Your task to perform on an android device: add a label to a message in the gmail app Image 0: 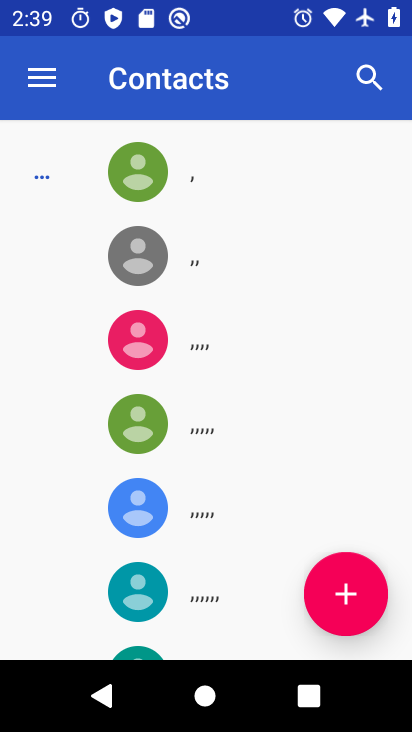
Step 0: press home button
Your task to perform on an android device: add a label to a message in the gmail app Image 1: 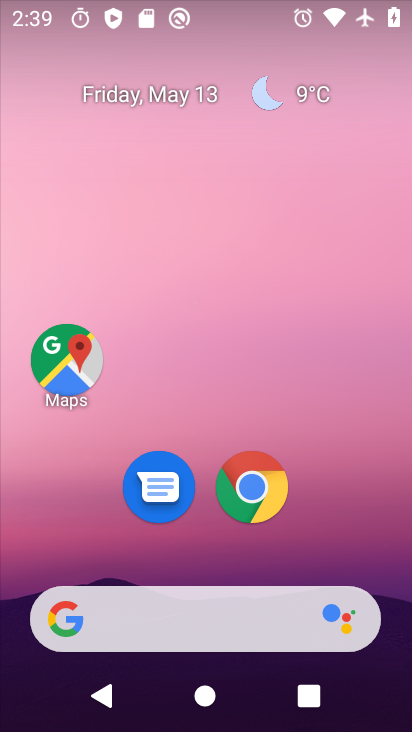
Step 1: drag from (201, 535) to (246, 78)
Your task to perform on an android device: add a label to a message in the gmail app Image 2: 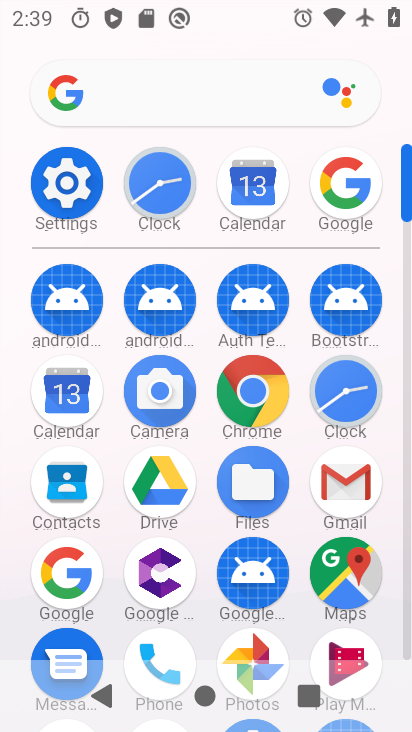
Step 2: click (354, 478)
Your task to perform on an android device: add a label to a message in the gmail app Image 3: 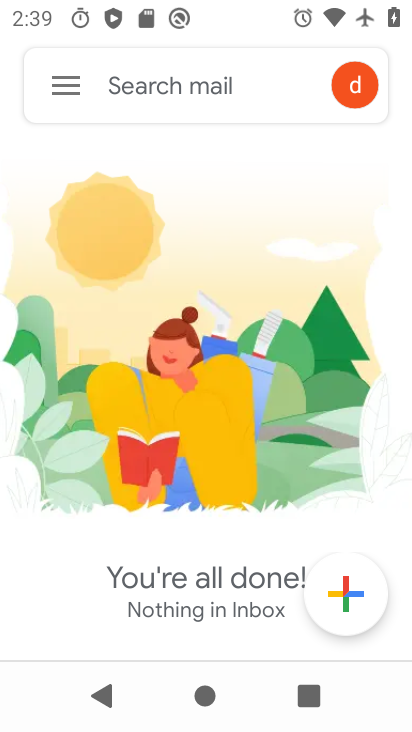
Step 3: click (63, 79)
Your task to perform on an android device: add a label to a message in the gmail app Image 4: 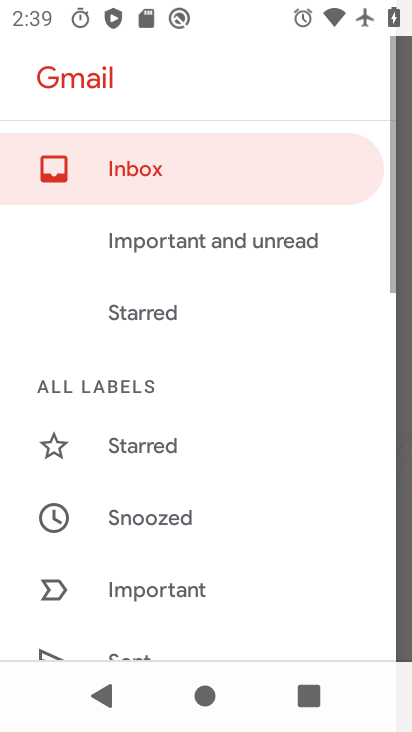
Step 4: drag from (227, 528) to (226, 131)
Your task to perform on an android device: add a label to a message in the gmail app Image 5: 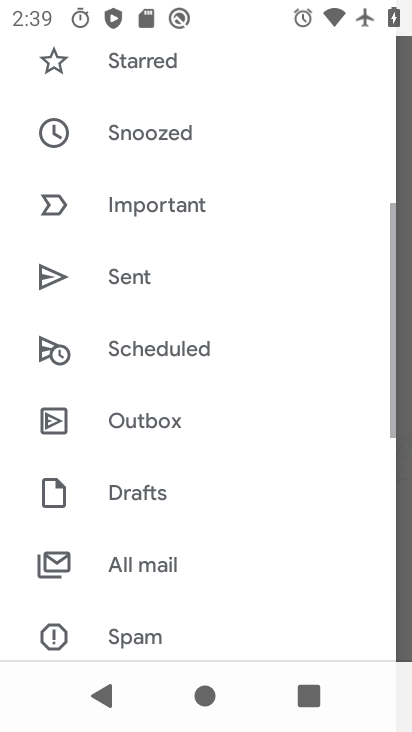
Step 5: drag from (221, 550) to (221, 189)
Your task to perform on an android device: add a label to a message in the gmail app Image 6: 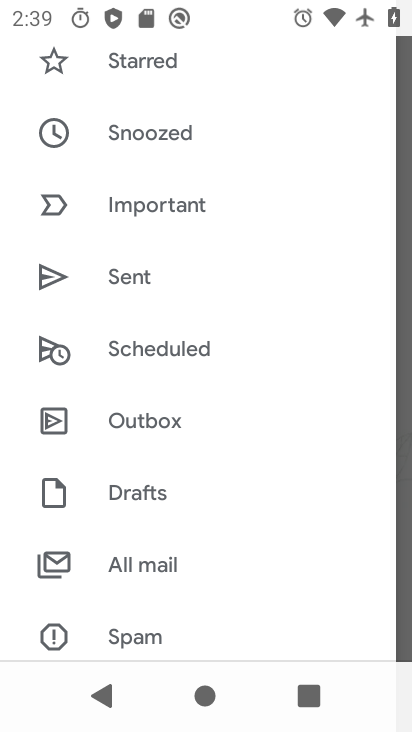
Step 6: click (156, 564)
Your task to perform on an android device: add a label to a message in the gmail app Image 7: 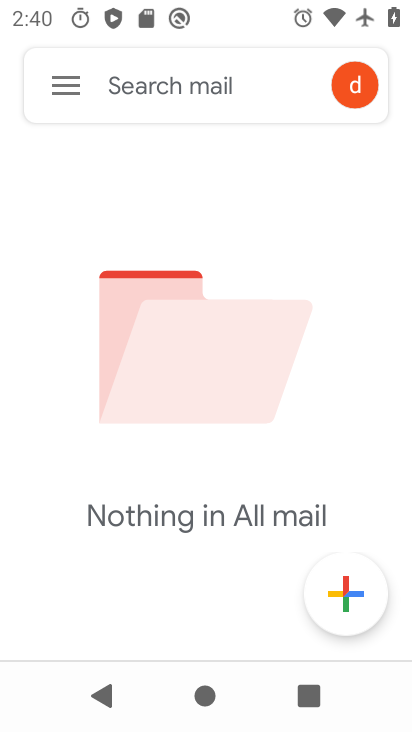
Step 7: task complete